Your task to perform on an android device: What's the weather going to be tomorrow? Image 0: 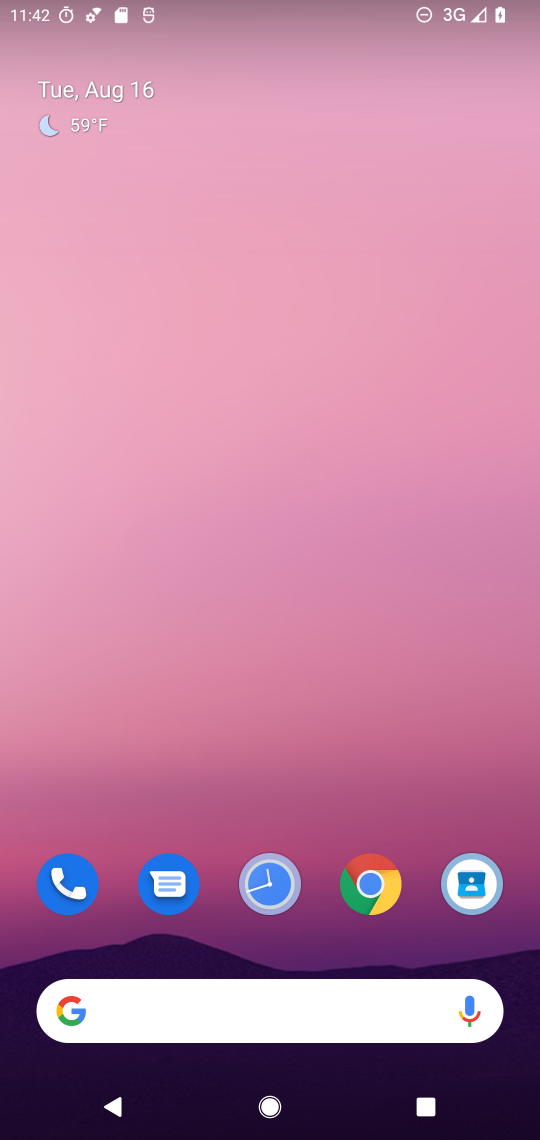
Step 0: drag from (247, 946) to (226, 1009)
Your task to perform on an android device: What's the weather going to be tomorrow? Image 1: 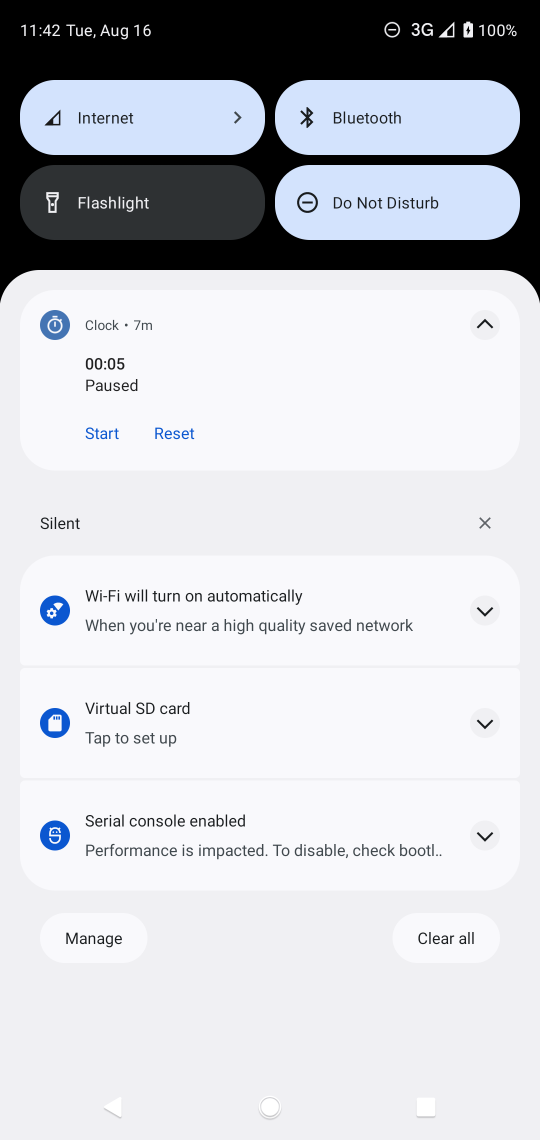
Step 1: press back button
Your task to perform on an android device: What's the weather going to be tomorrow? Image 2: 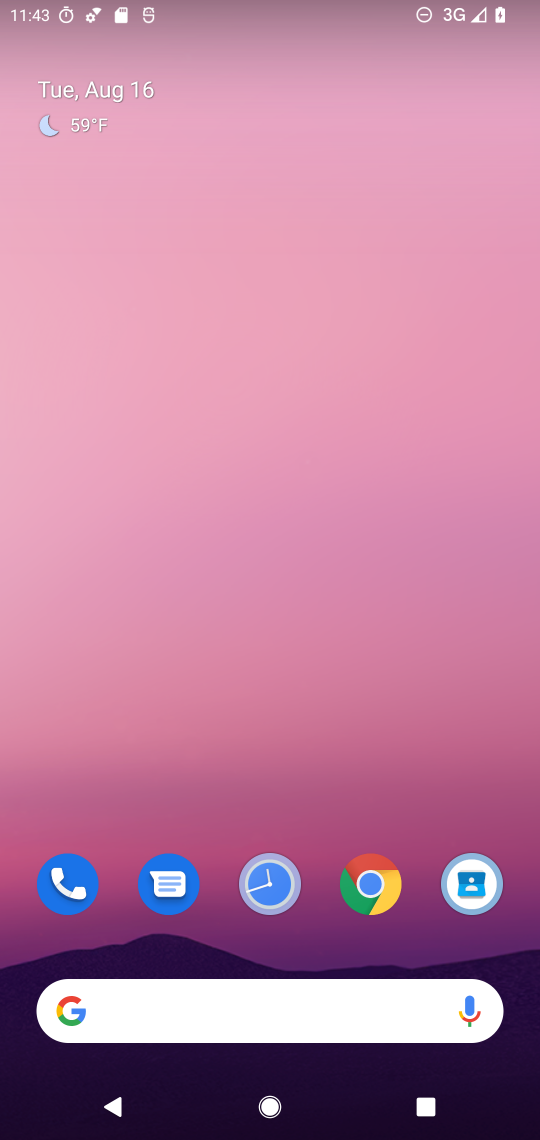
Step 2: click (262, 1006)
Your task to perform on an android device: What's the weather going to be tomorrow? Image 3: 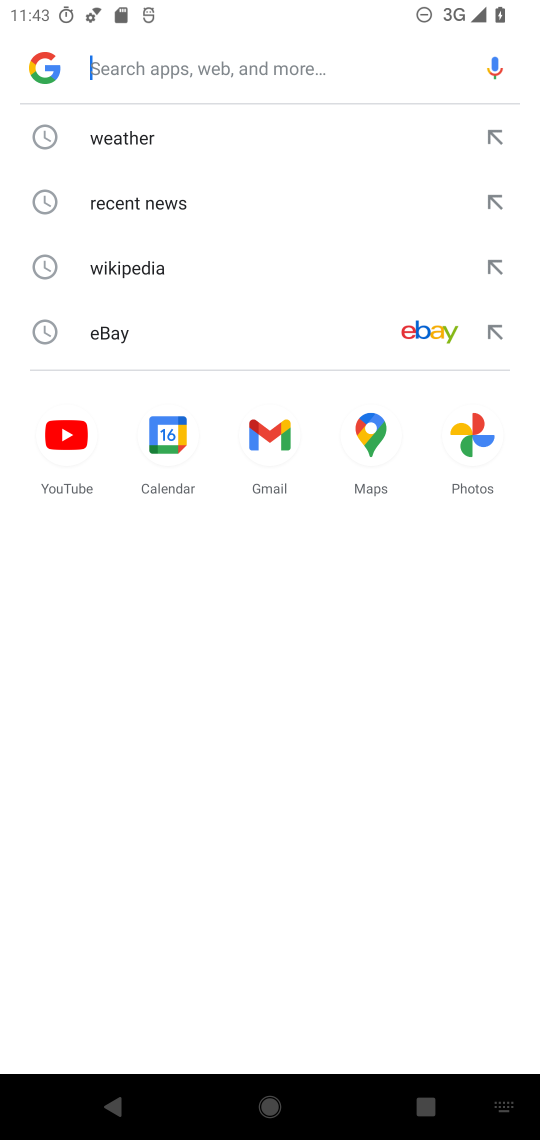
Step 3: click (92, 132)
Your task to perform on an android device: What's the weather going to be tomorrow? Image 4: 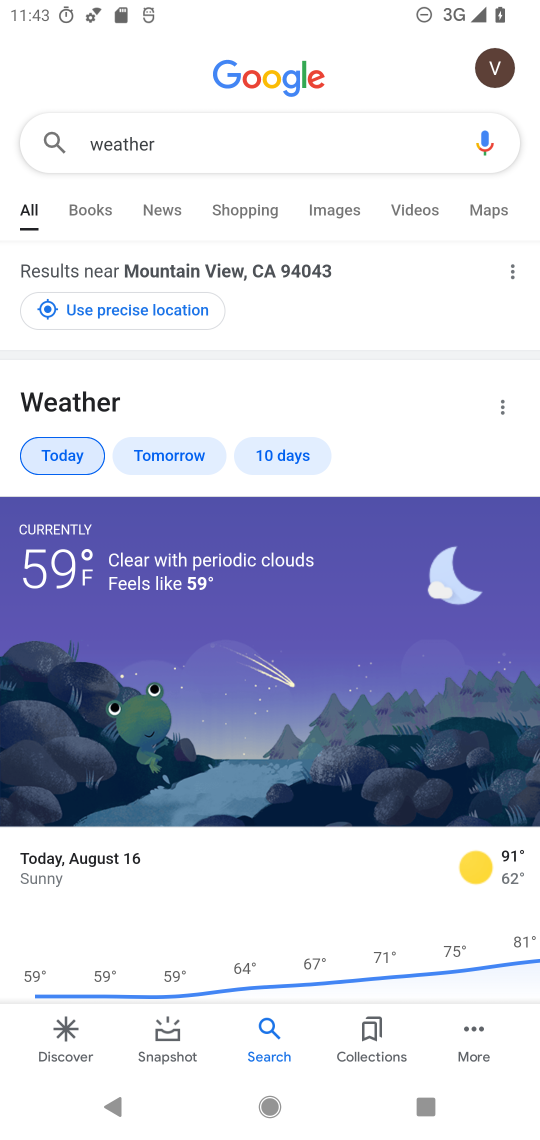
Step 4: click (185, 454)
Your task to perform on an android device: What's the weather going to be tomorrow? Image 5: 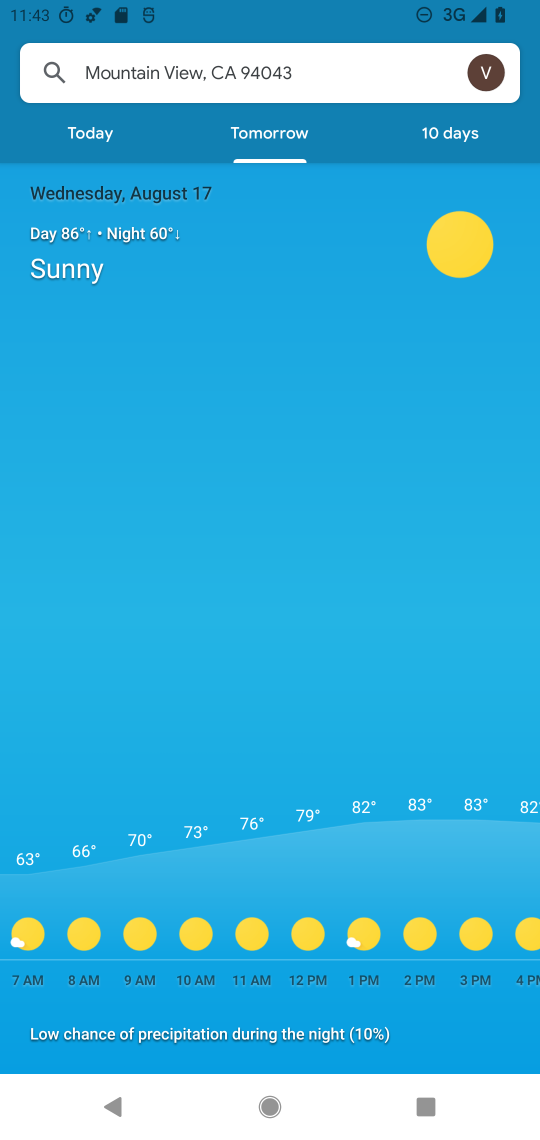
Step 5: task complete